Your task to perform on an android device: Search for seafood restaurants on Google Maps Image 0: 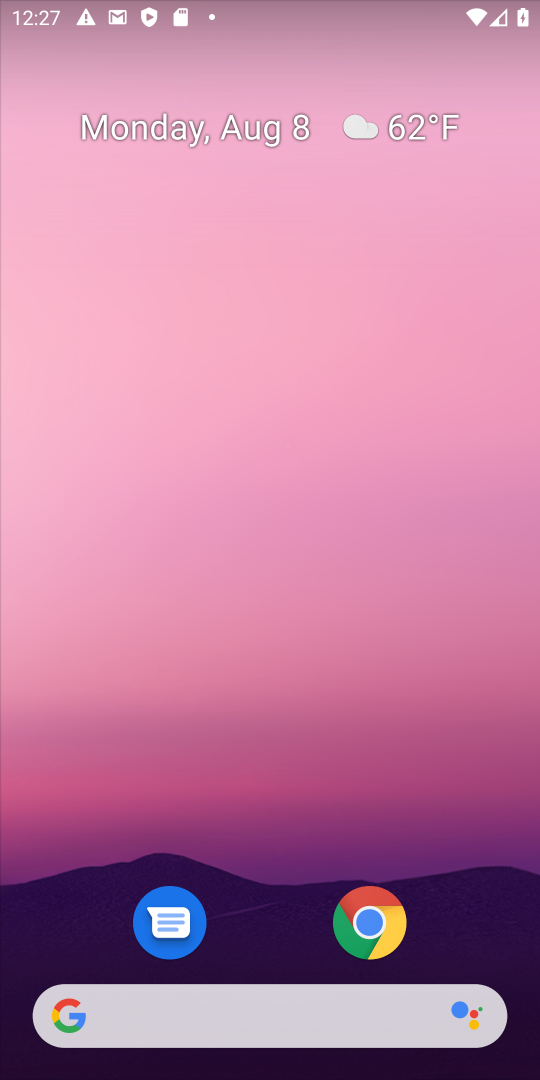
Step 0: drag from (431, 760) to (373, 343)
Your task to perform on an android device: Search for seafood restaurants on Google Maps Image 1: 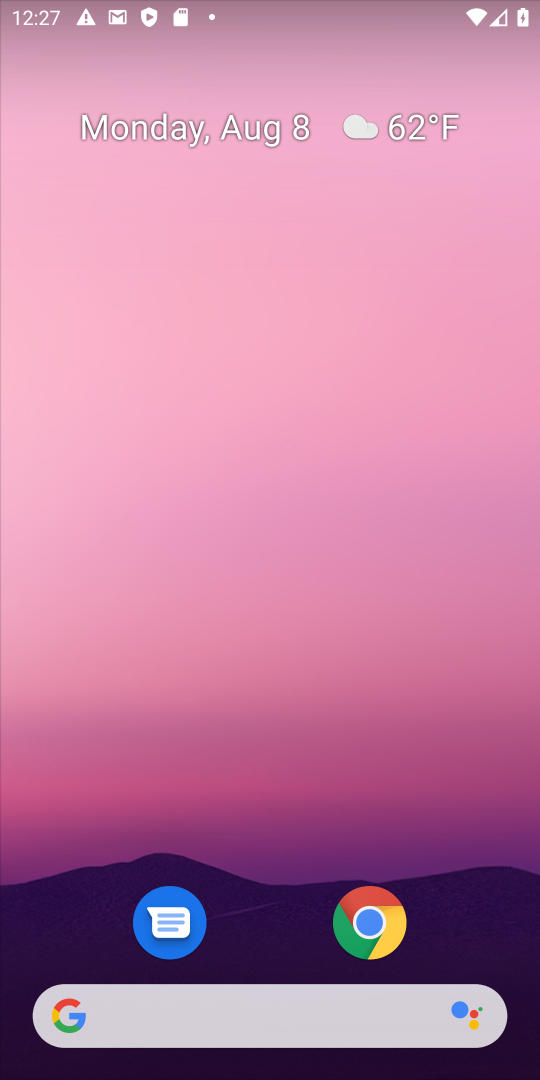
Step 1: drag from (490, 909) to (372, 63)
Your task to perform on an android device: Search for seafood restaurants on Google Maps Image 2: 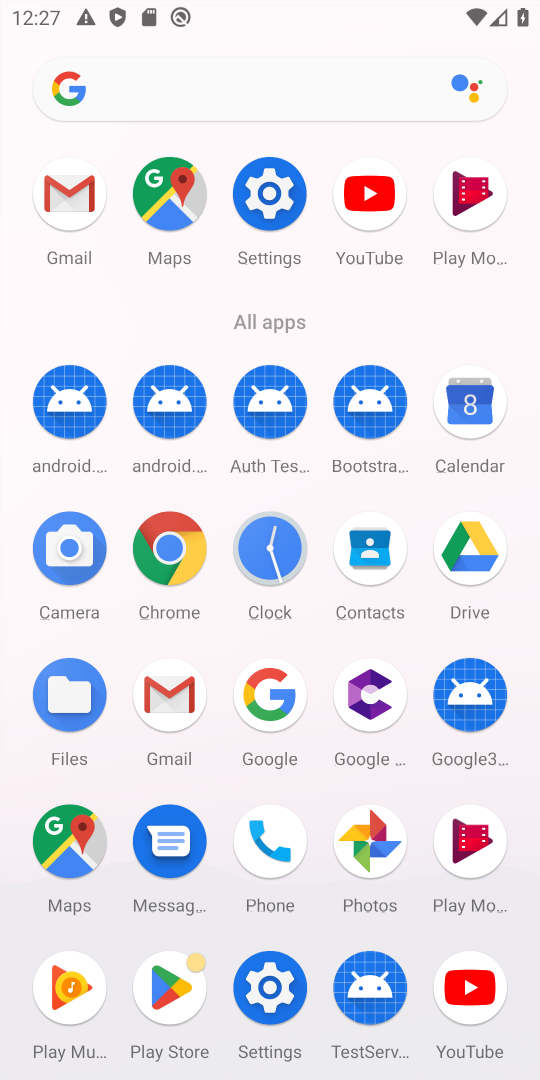
Step 2: click (66, 835)
Your task to perform on an android device: Search for seafood restaurants on Google Maps Image 3: 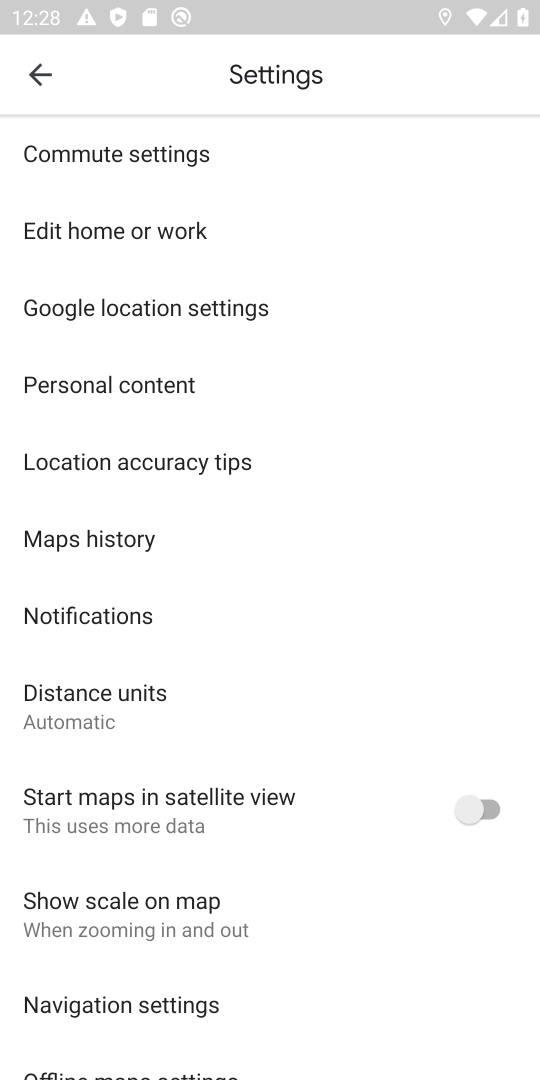
Step 3: drag from (260, 847) to (198, 479)
Your task to perform on an android device: Search for seafood restaurants on Google Maps Image 4: 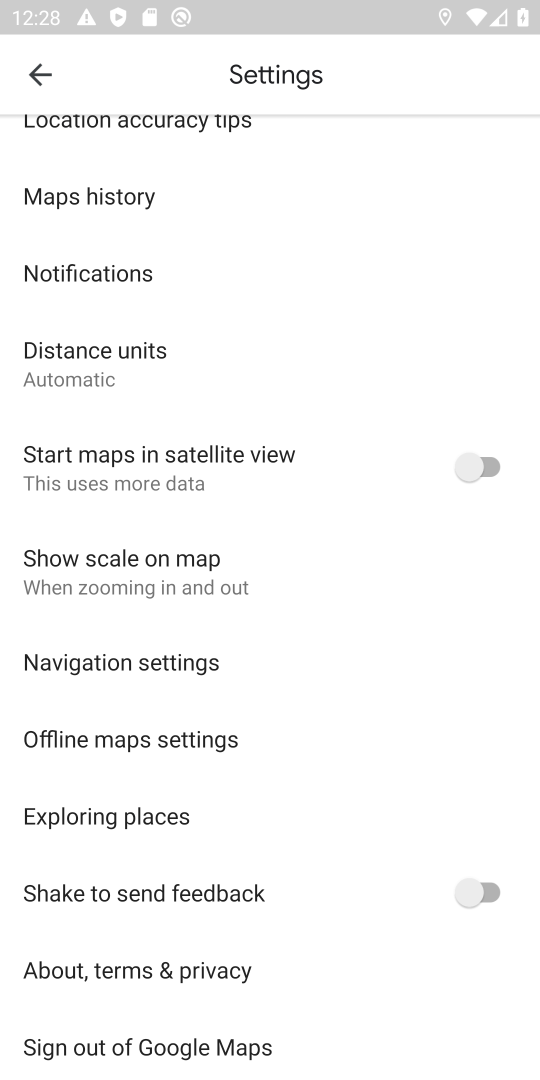
Step 4: press home button
Your task to perform on an android device: Search for seafood restaurants on Google Maps Image 5: 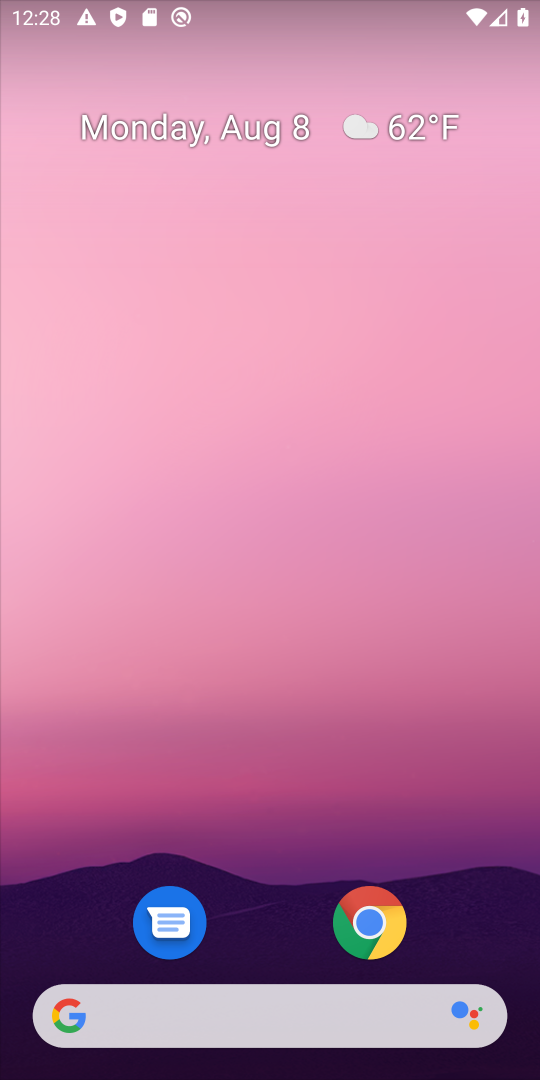
Step 5: drag from (293, 922) to (204, 208)
Your task to perform on an android device: Search for seafood restaurants on Google Maps Image 6: 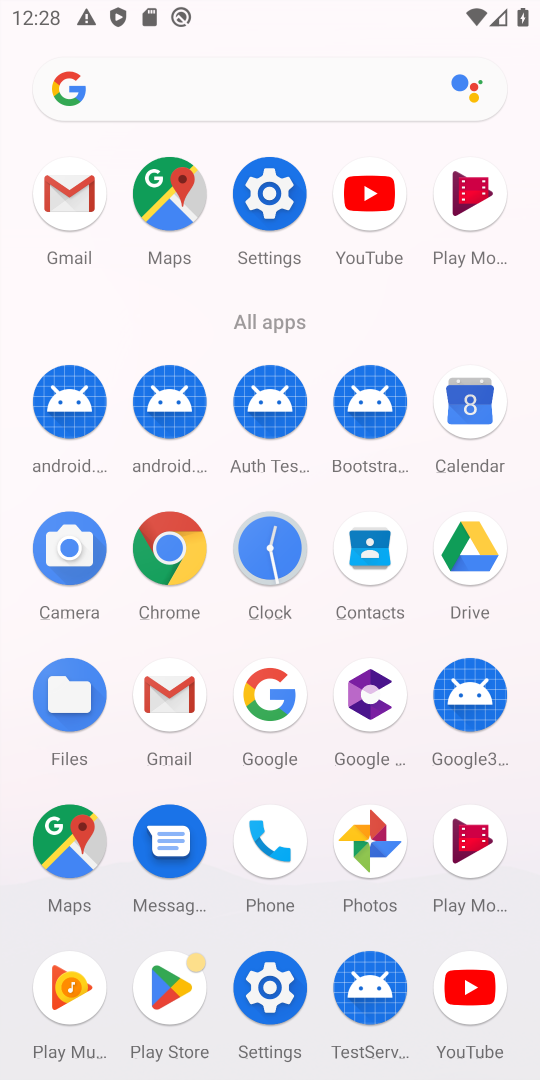
Step 6: click (162, 222)
Your task to perform on an android device: Search for seafood restaurants on Google Maps Image 7: 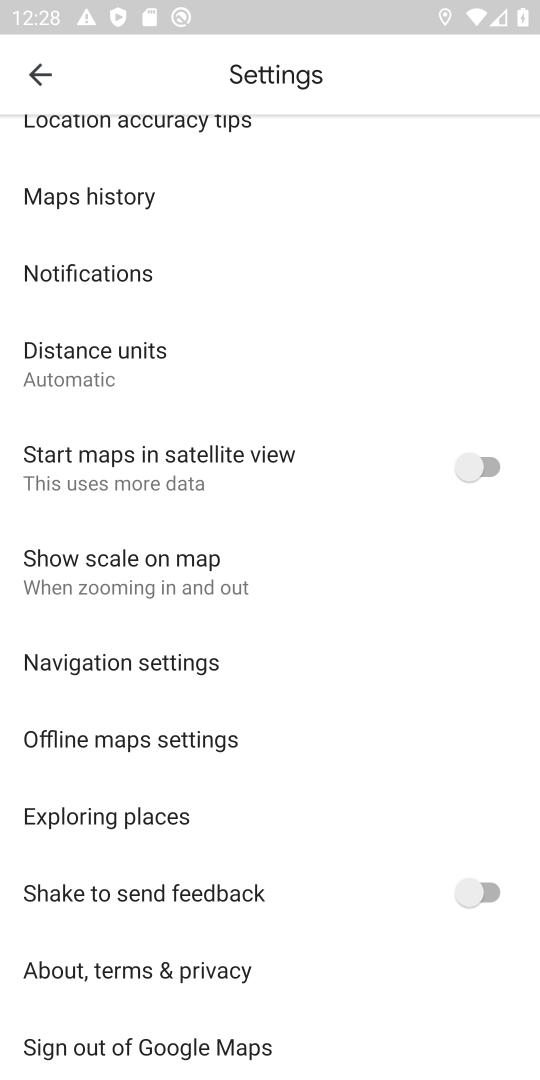
Step 7: click (18, 58)
Your task to perform on an android device: Search for seafood restaurants on Google Maps Image 8: 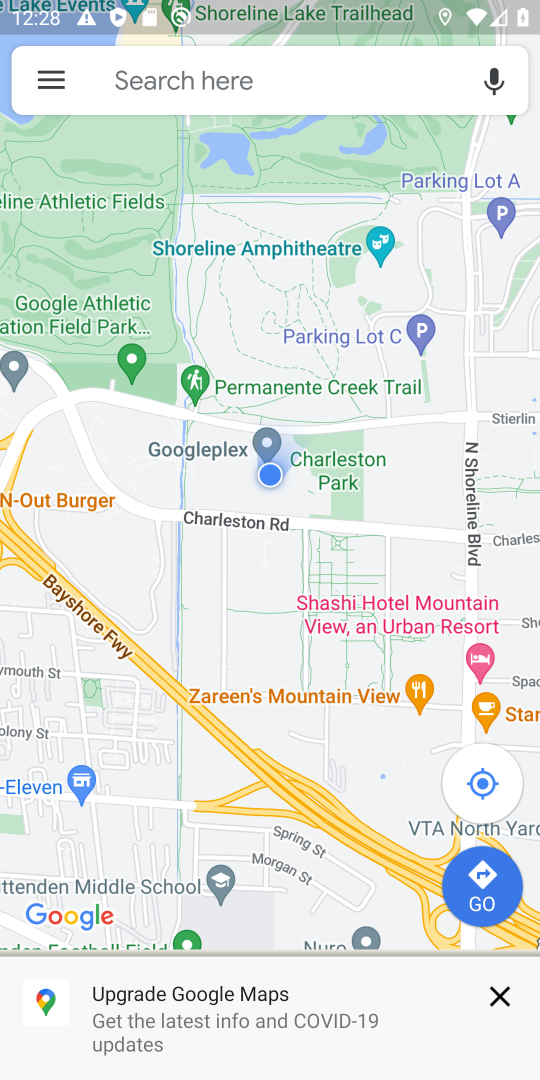
Step 8: click (144, 68)
Your task to perform on an android device: Search for seafood restaurants on Google Maps Image 9: 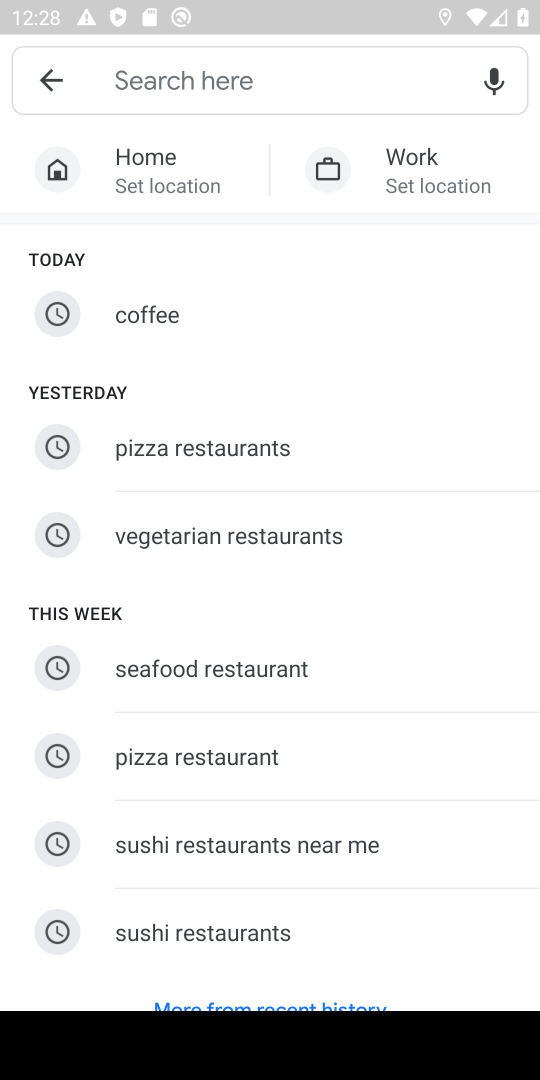
Step 9: click (202, 670)
Your task to perform on an android device: Search for seafood restaurants on Google Maps Image 10: 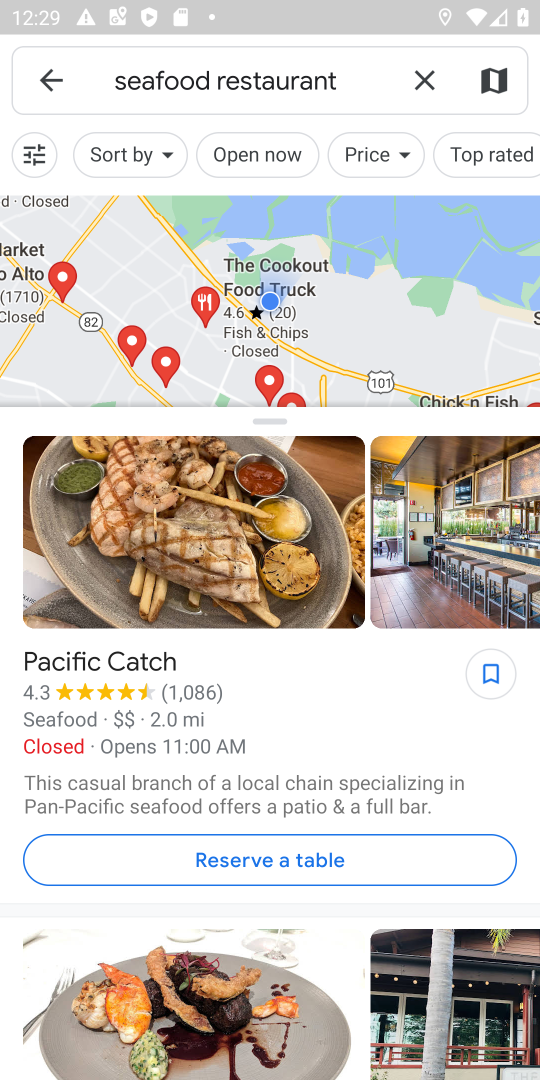
Step 10: task complete